Your task to perform on an android device: Search for pizza restaurants on Maps Image 0: 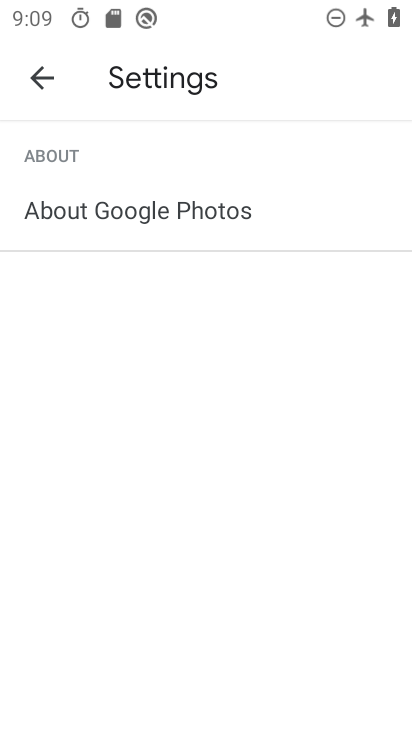
Step 0: press home button
Your task to perform on an android device: Search for pizza restaurants on Maps Image 1: 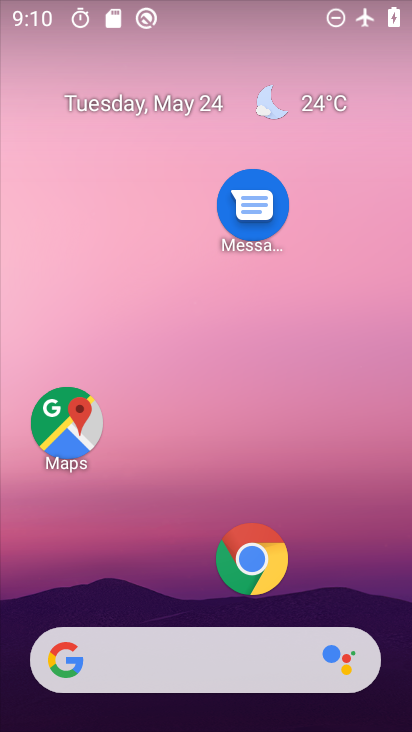
Step 1: click (66, 445)
Your task to perform on an android device: Search for pizza restaurants on Maps Image 2: 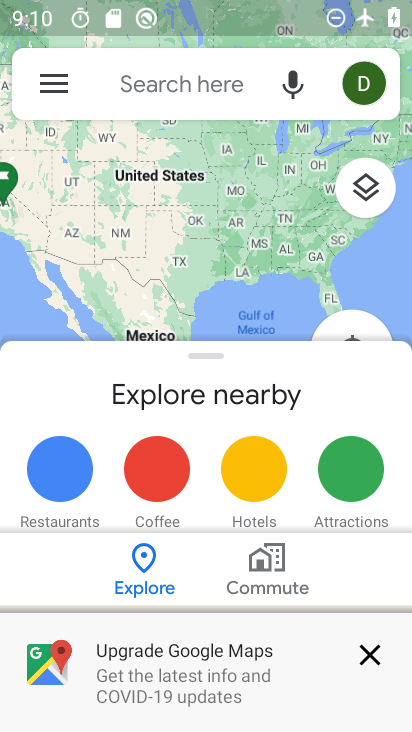
Step 2: click (178, 98)
Your task to perform on an android device: Search for pizza restaurants on Maps Image 3: 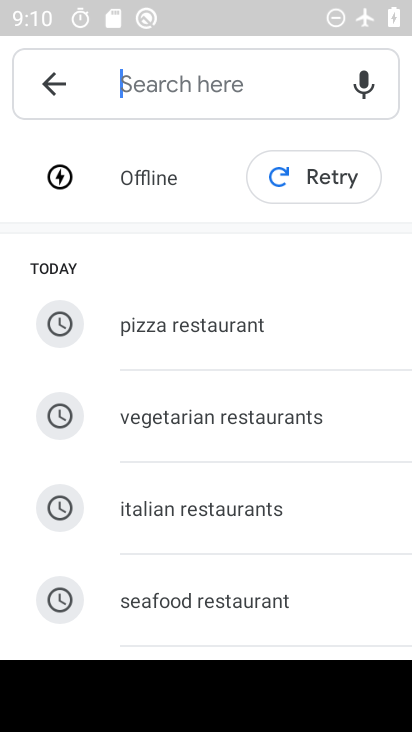
Step 3: click (143, 319)
Your task to perform on an android device: Search for pizza restaurants on Maps Image 4: 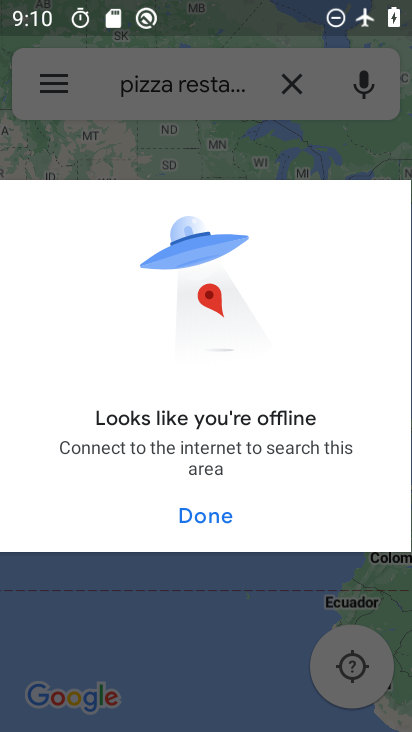
Step 4: task complete